Your task to perform on an android device: toggle airplane mode Image 0: 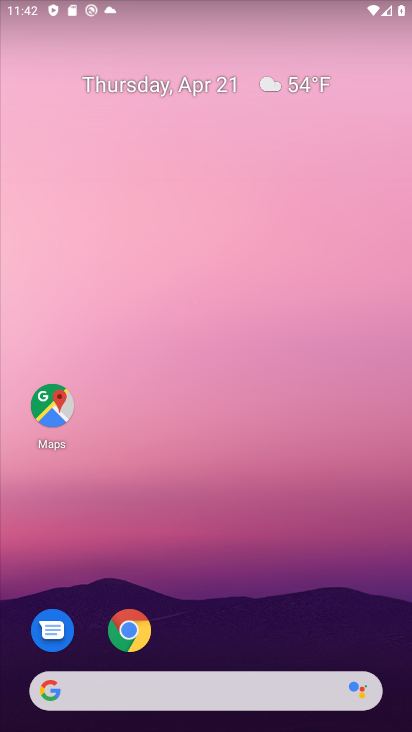
Step 0: drag from (247, 668) to (274, 350)
Your task to perform on an android device: toggle airplane mode Image 1: 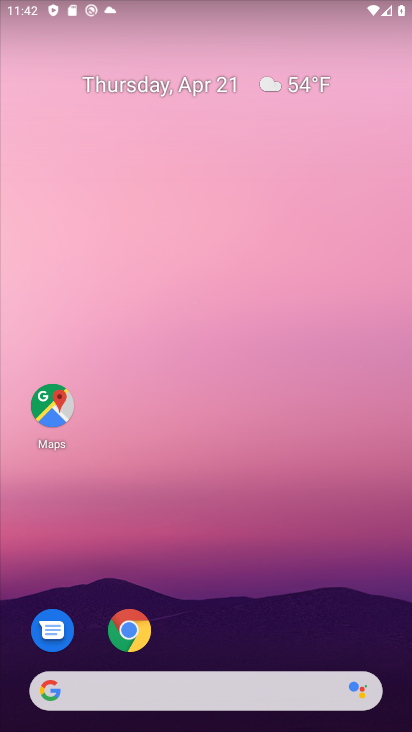
Step 1: drag from (203, 574) to (254, 128)
Your task to perform on an android device: toggle airplane mode Image 2: 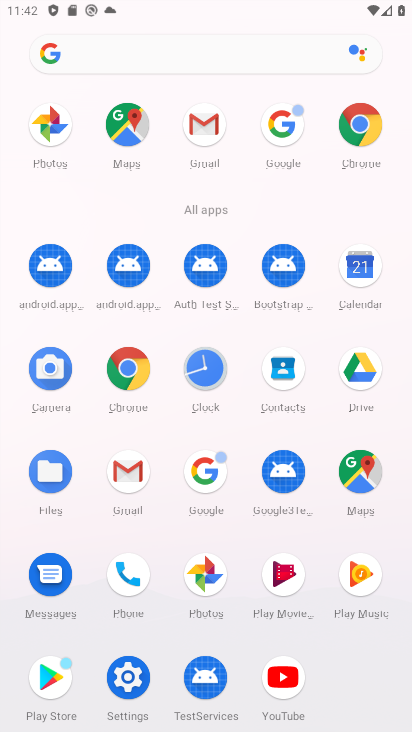
Step 2: click (133, 676)
Your task to perform on an android device: toggle airplane mode Image 3: 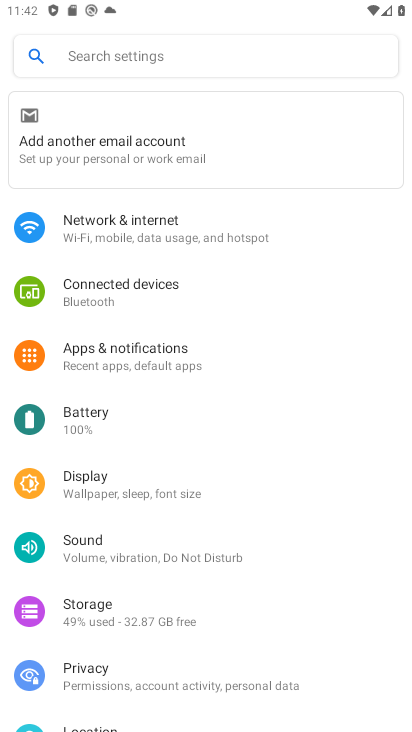
Step 3: click (121, 236)
Your task to perform on an android device: toggle airplane mode Image 4: 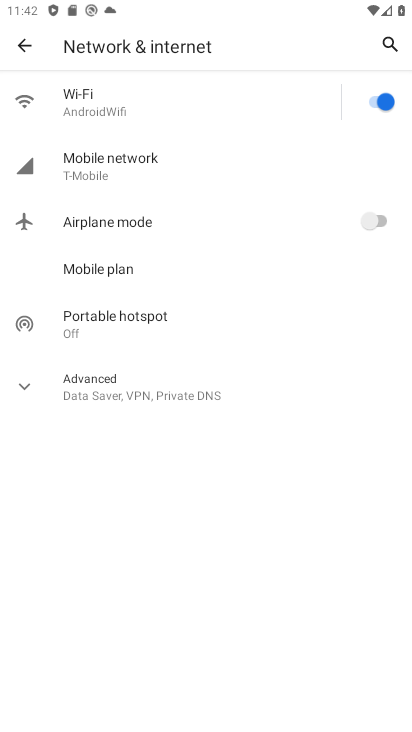
Step 4: click (382, 219)
Your task to perform on an android device: toggle airplane mode Image 5: 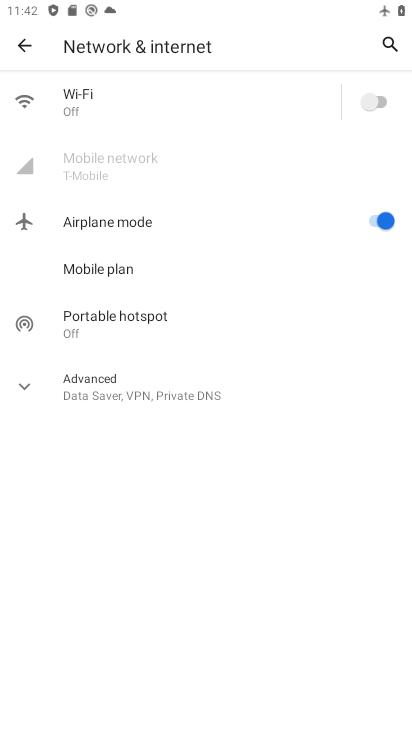
Step 5: task complete